Your task to perform on an android device: change notifications settings Image 0: 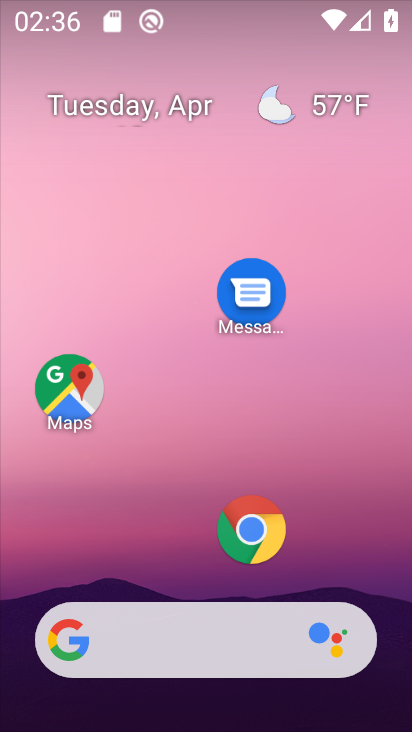
Step 0: drag from (168, 529) to (172, 224)
Your task to perform on an android device: change notifications settings Image 1: 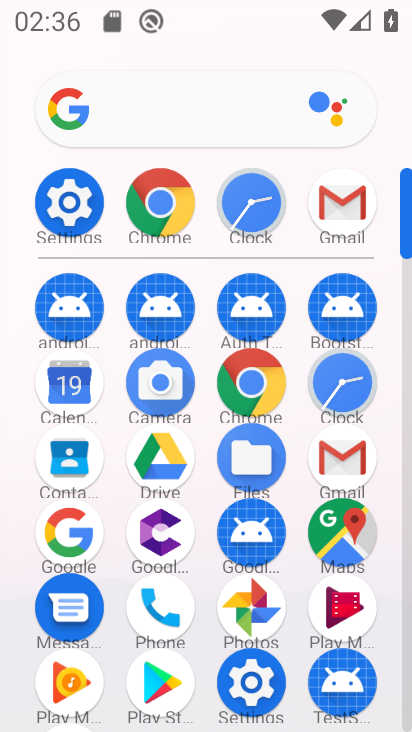
Step 1: click (63, 200)
Your task to perform on an android device: change notifications settings Image 2: 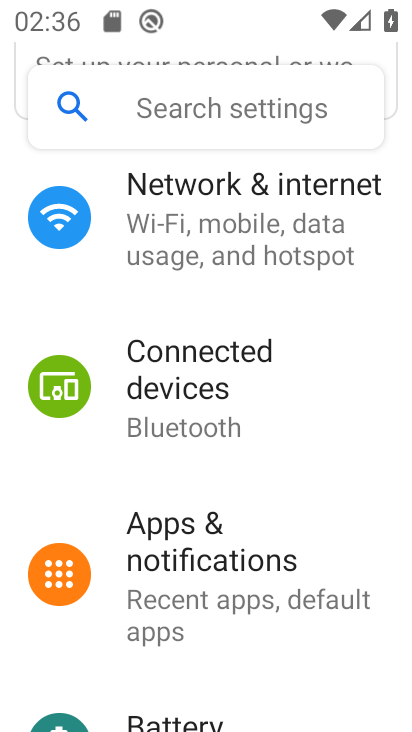
Step 2: click (239, 553)
Your task to perform on an android device: change notifications settings Image 3: 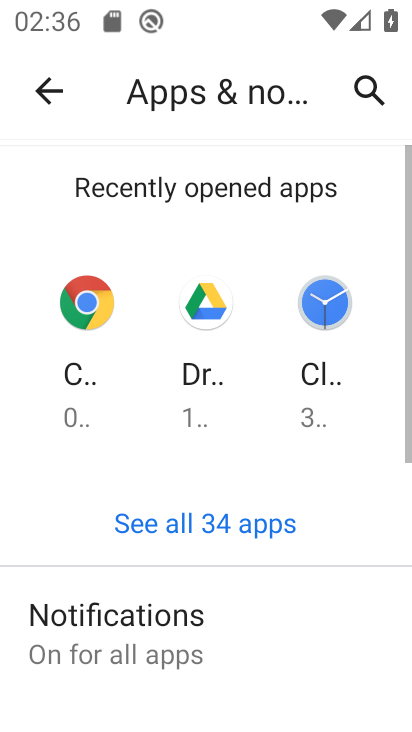
Step 3: click (141, 607)
Your task to perform on an android device: change notifications settings Image 4: 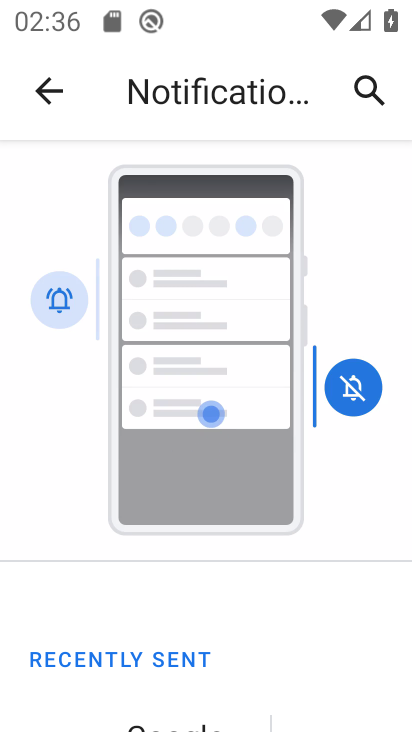
Step 4: drag from (293, 603) to (260, 94)
Your task to perform on an android device: change notifications settings Image 5: 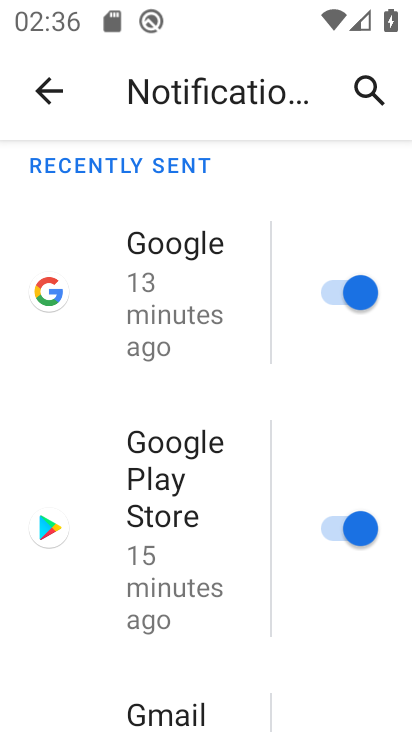
Step 5: click (348, 298)
Your task to perform on an android device: change notifications settings Image 6: 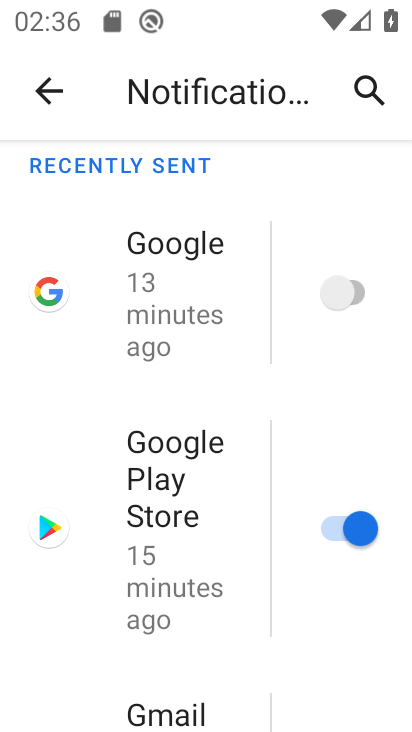
Step 6: click (358, 537)
Your task to perform on an android device: change notifications settings Image 7: 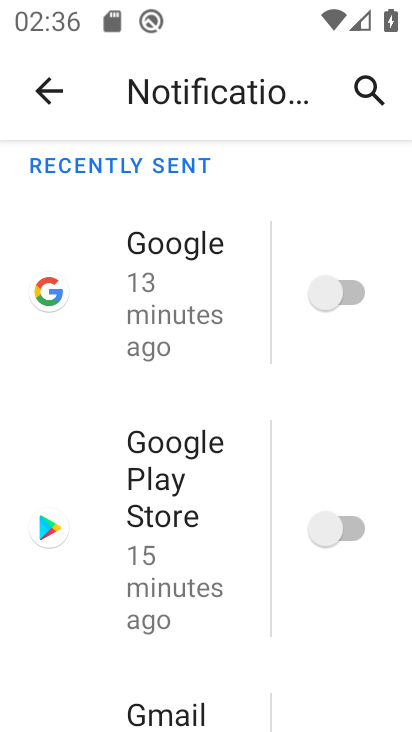
Step 7: drag from (328, 567) to (298, 321)
Your task to perform on an android device: change notifications settings Image 8: 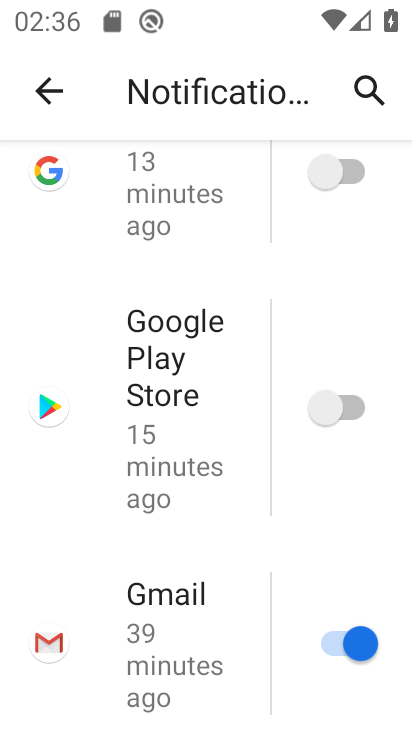
Step 8: click (353, 634)
Your task to perform on an android device: change notifications settings Image 9: 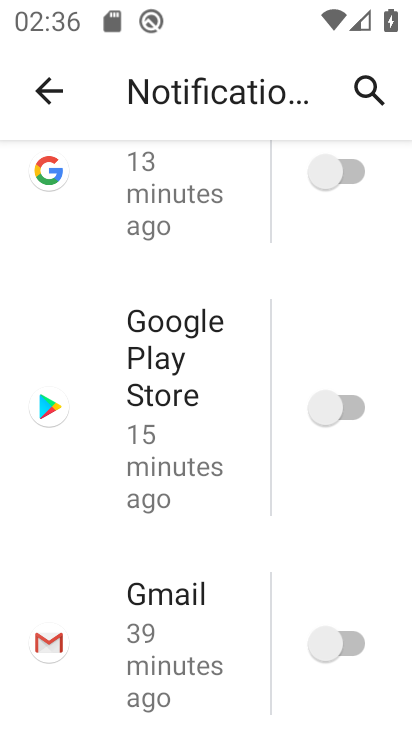
Step 9: drag from (246, 580) to (221, 283)
Your task to perform on an android device: change notifications settings Image 10: 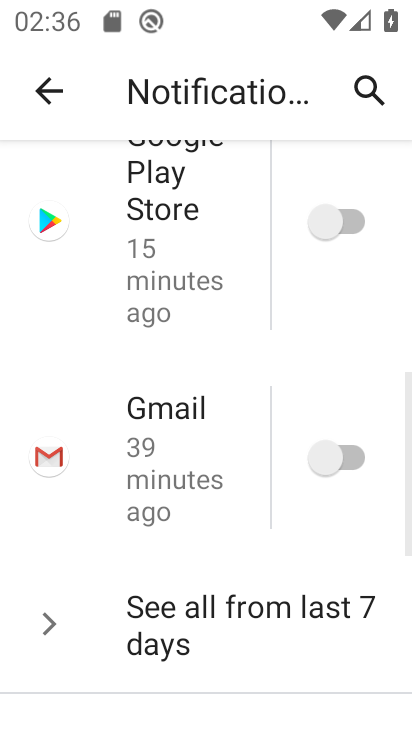
Step 10: click (227, 624)
Your task to perform on an android device: change notifications settings Image 11: 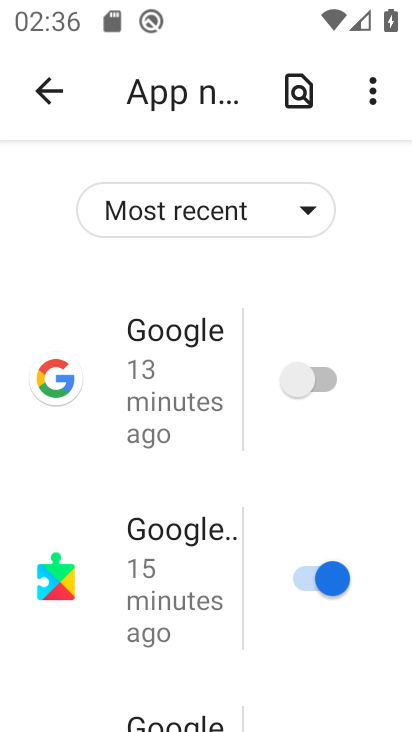
Step 11: drag from (266, 544) to (260, 349)
Your task to perform on an android device: change notifications settings Image 12: 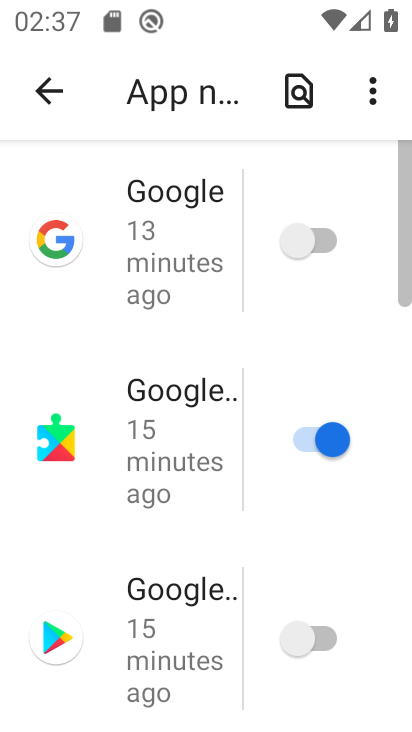
Step 12: drag from (330, 439) to (249, 219)
Your task to perform on an android device: change notifications settings Image 13: 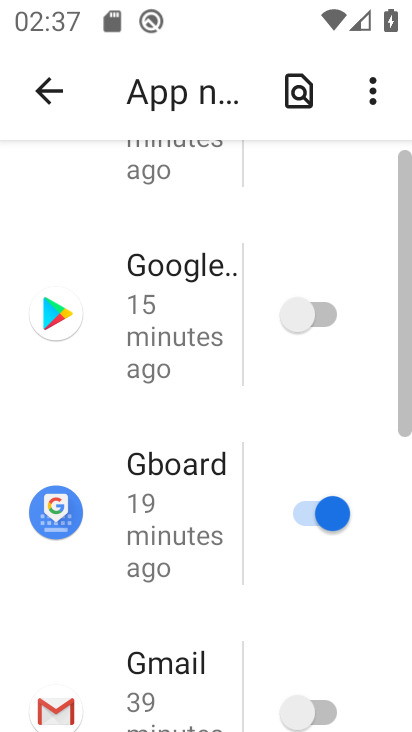
Step 13: drag from (300, 175) to (309, 229)
Your task to perform on an android device: change notifications settings Image 14: 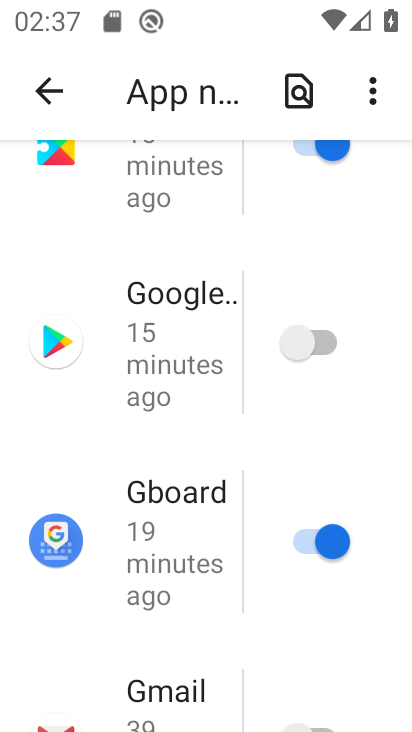
Step 14: click (341, 133)
Your task to perform on an android device: change notifications settings Image 15: 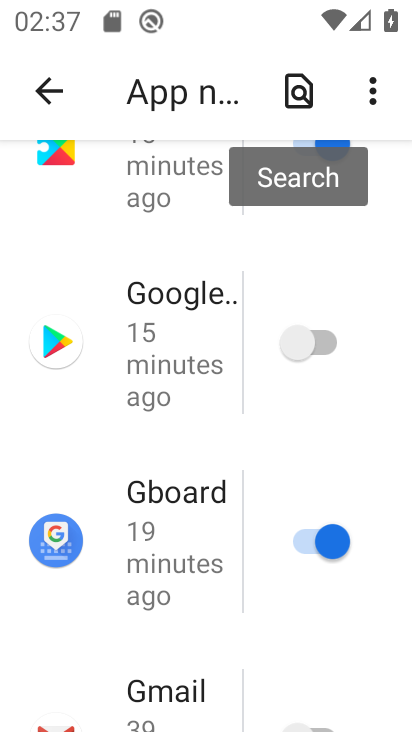
Step 15: click (320, 572)
Your task to perform on an android device: change notifications settings Image 16: 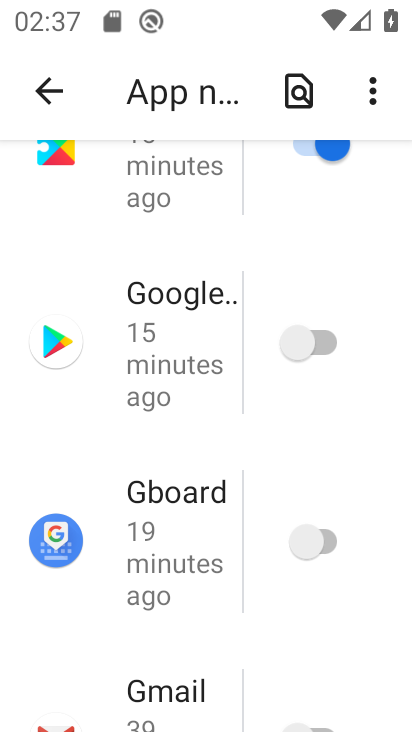
Step 16: task complete